Your task to perform on an android device: Open calendar and show me the first week of next month Image 0: 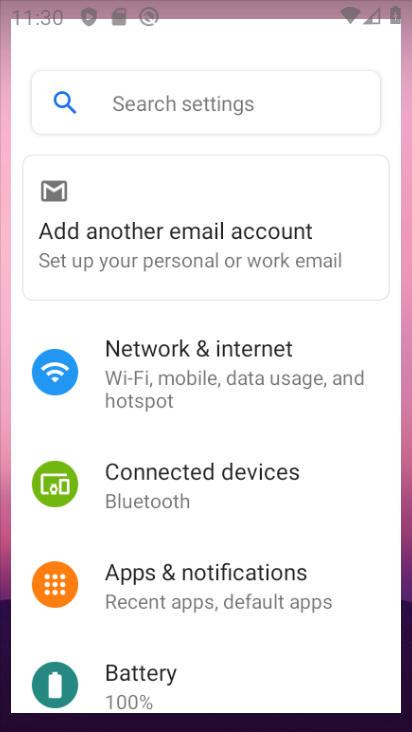
Step 0: press home button
Your task to perform on an android device: Open calendar and show me the first week of next month Image 1: 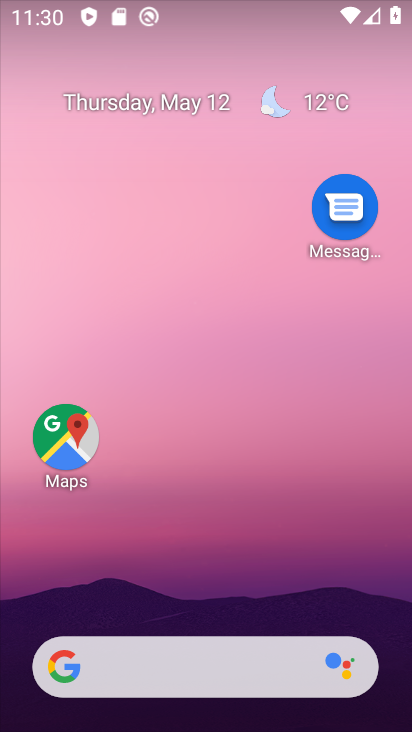
Step 1: drag from (283, 526) to (244, 2)
Your task to perform on an android device: Open calendar and show me the first week of next month Image 2: 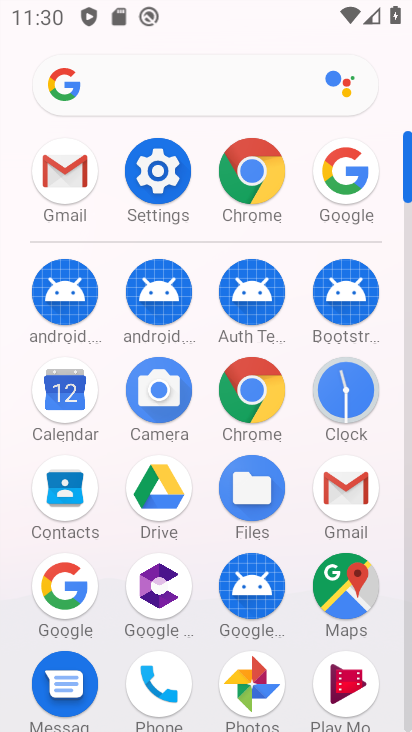
Step 2: click (79, 381)
Your task to perform on an android device: Open calendar and show me the first week of next month Image 3: 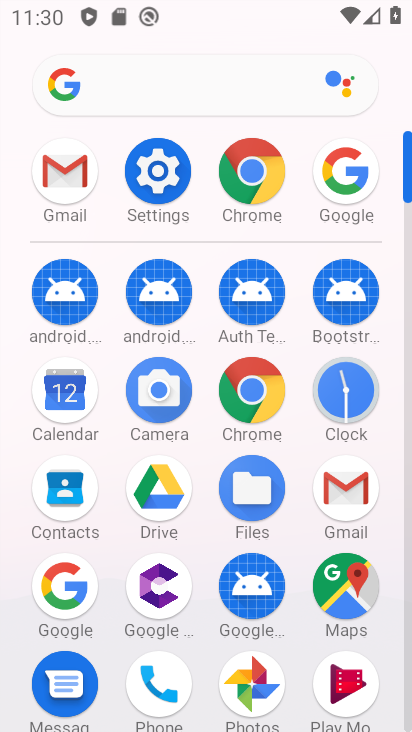
Step 3: click (79, 381)
Your task to perform on an android device: Open calendar and show me the first week of next month Image 4: 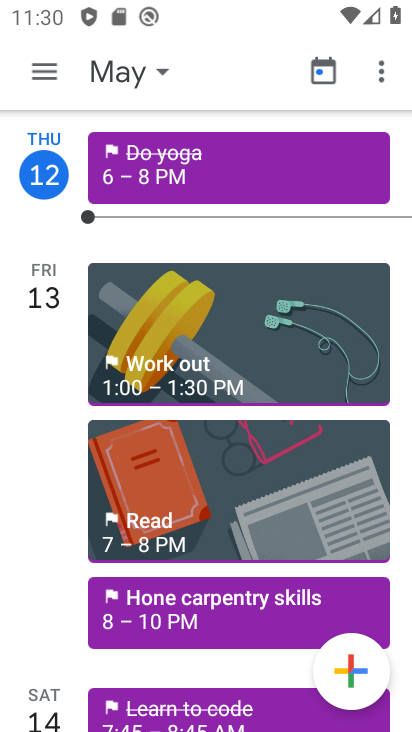
Step 4: click (146, 63)
Your task to perform on an android device: Open calendar and show me the first week of next month Image 5: 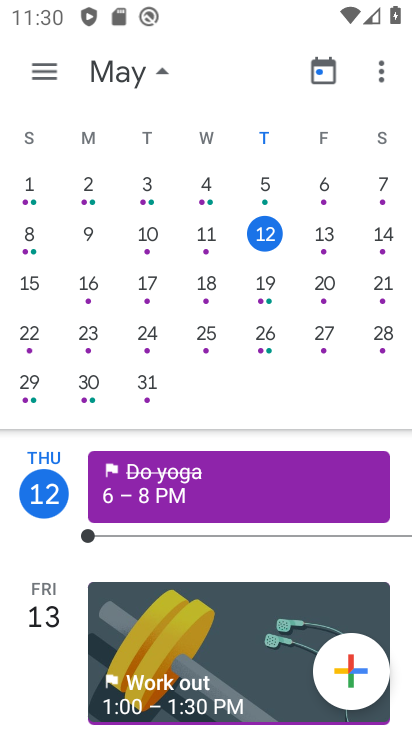
Step 5: task complete